Your task to perform on an android device: Open maps Image 0: 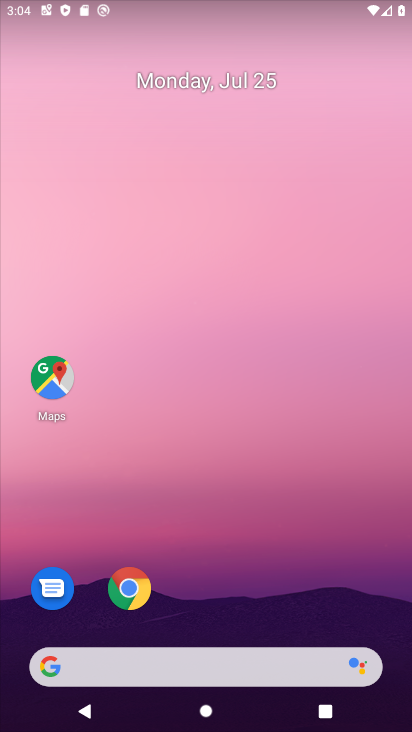
Step 0: drag from (293, 556) to (299, 2)
Your task to perform on an android device: Open maps Image 1: 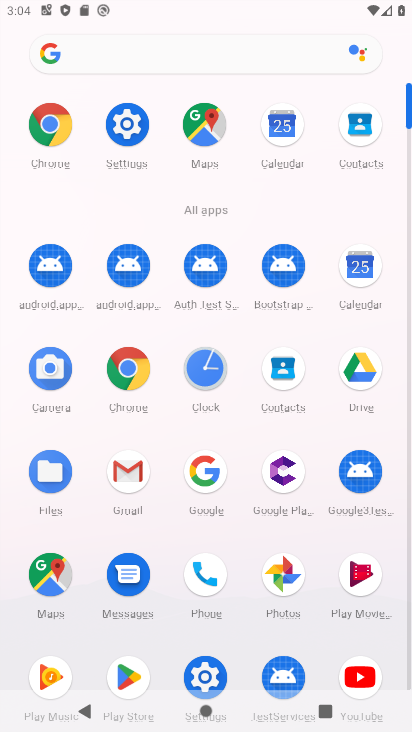
Step 1: click (197, 131)
Your task to perform on an android device: Open maps Image 2: 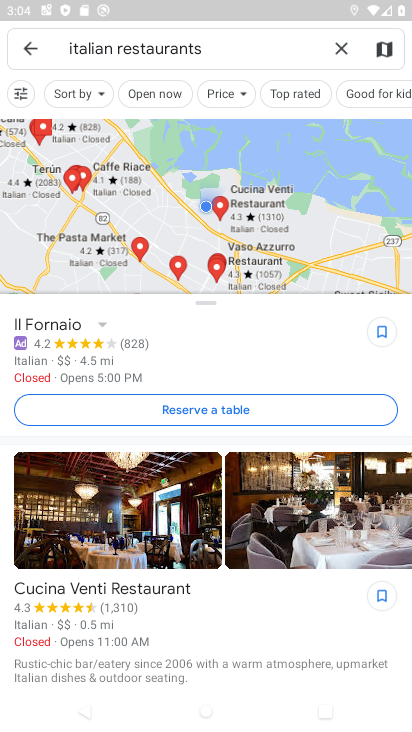
Step 2: task complete